Your task to perform on an android device: change notifications settings Image 0: 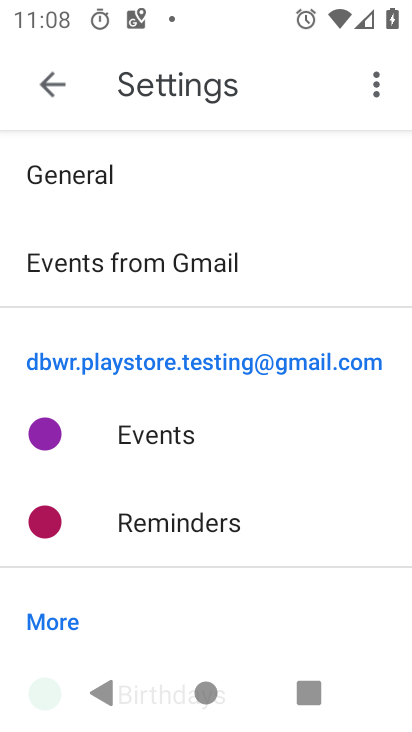
Step 0: press home button
Your task to perform on an android device: change notifications settings Image 1: 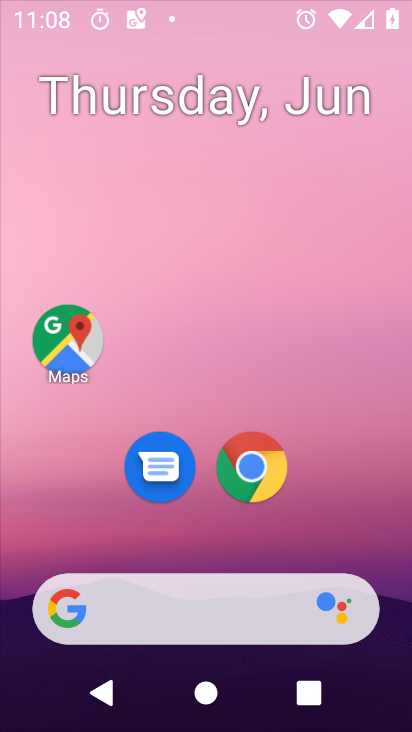
Step 1: drag from (111, 469) to (317, 39)
Your task to perform on an android device: change notifications settings Image 2: 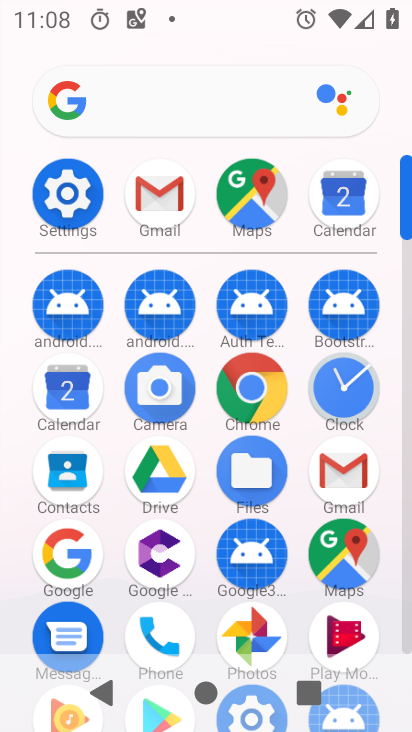
Step 2: click (76, 190)
Your task to perform on an android device: change notifications settings Image 3: 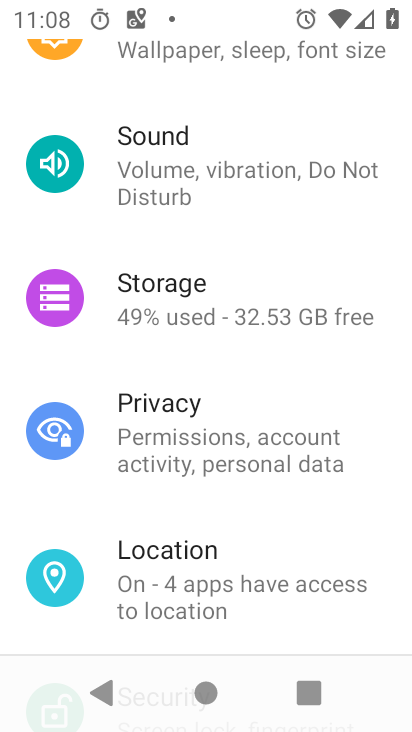
Step 3: drag from (163, 118) to (181, 603)
Your task to perform on an android device: change notifications settings Image 4: 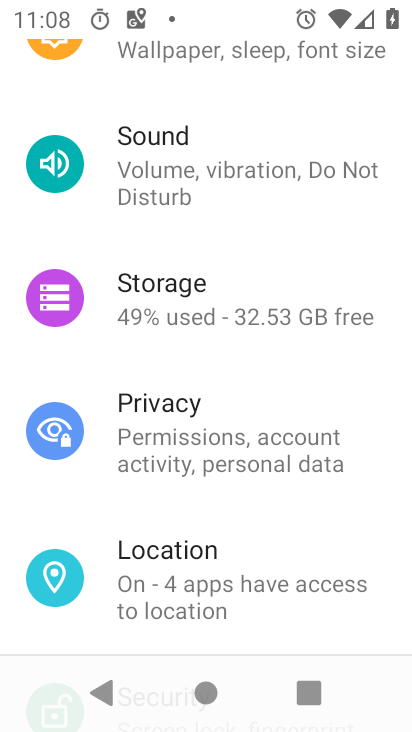
Step 4: drag from (114, 181) to (156, 645)
Your task to perform on an android device: change notifications settings Image 5: 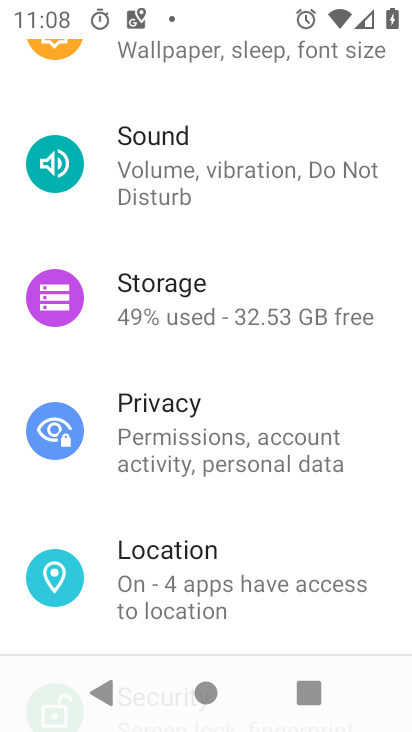
Step 5: drag from (36, 142) to (124, 616)
Your task to perform on an android device: change notifications settings Image 6: 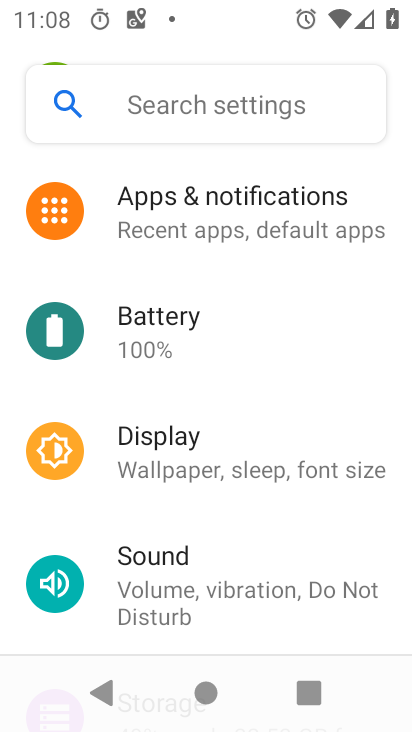
Step 6: click (225, 192)
Your task to perform on an android device: change notifications settings Image 7: 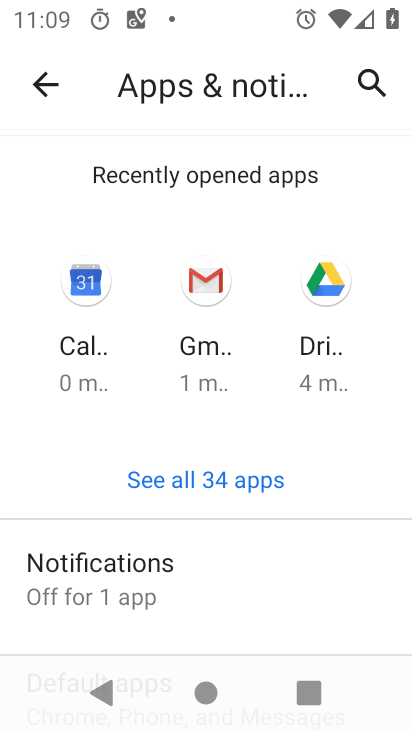
Step 7: click (87, 594)
Your task to perform on an android device: change notifications settings Image 8: 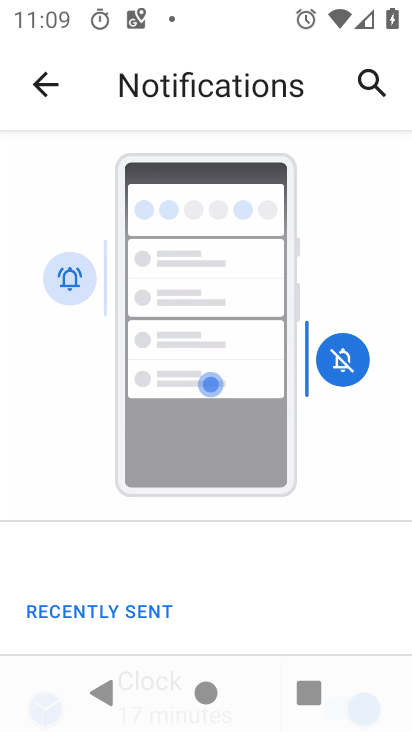
Step 8: task complete